Your task to perform on an android device: Search for seafood restaurants on Google Maps Image 0: 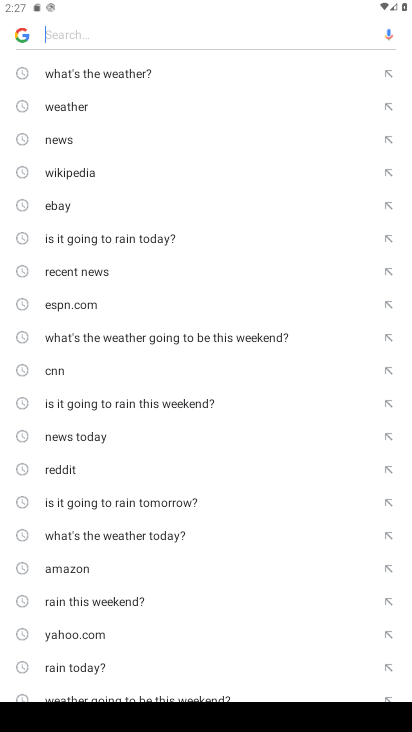
Step 0: press back button
Your task to perform on an android device: Search for seafood restaurants on Google Maps Image 1: 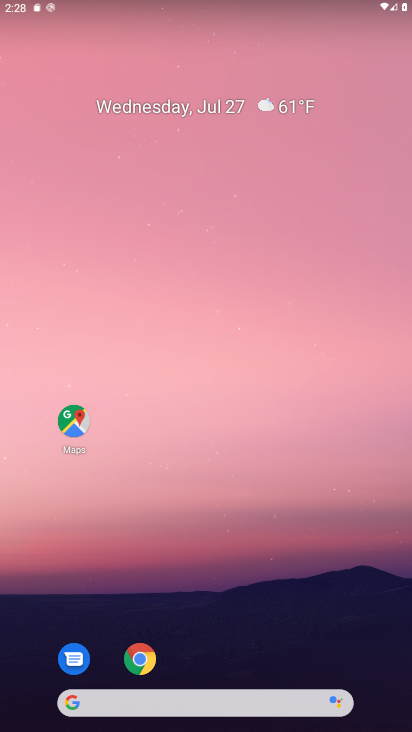
Step 1: click (79, 437)
Your task to perform on an android device: Search for seafood restaurants on Google Maps Image 2: 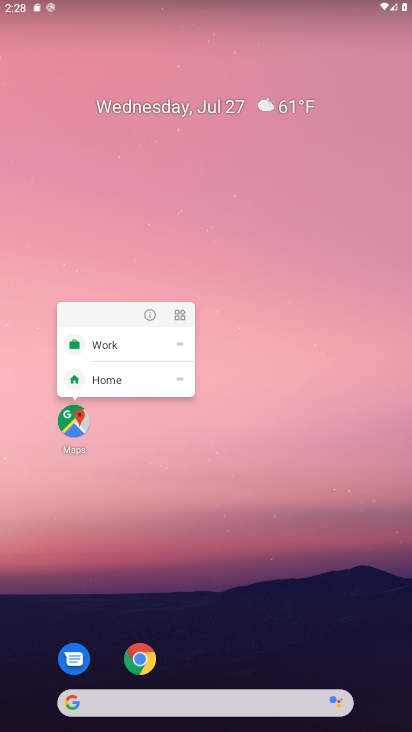
Step 2: click (79, 432)
Your task to perform on an android device: Search for seafood restaurants on Google Maps Image 3: 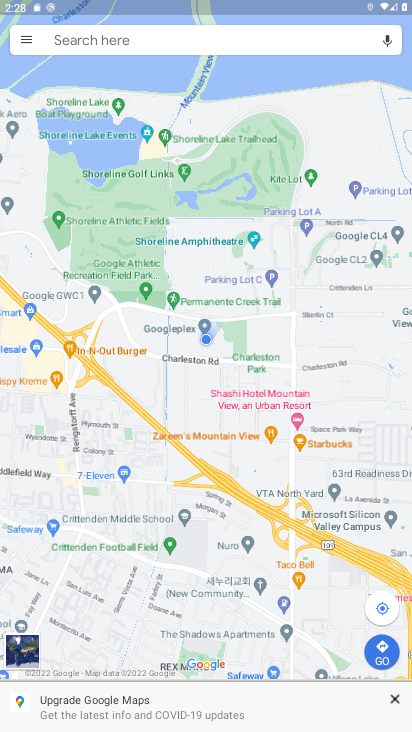
Step 3: click (232, 50)
Your task to perform on an android device: Search for seafood restaurants on Google Maps Image 4: 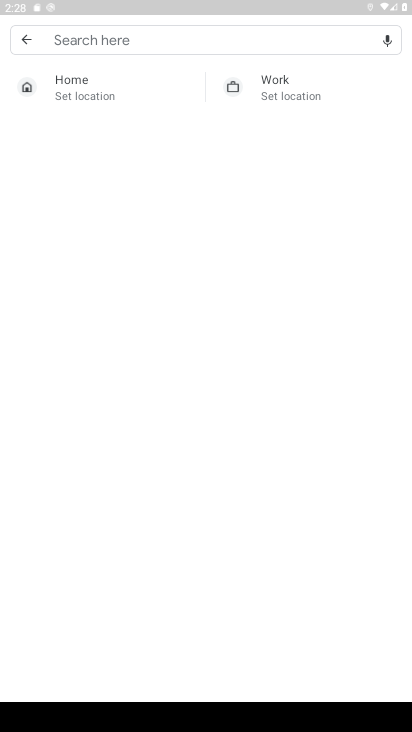
Step 4: type "seafoo dfeatarsnts"
Your task to perform on an android device: Search for seafood restaurants on Google Maps Image 5: 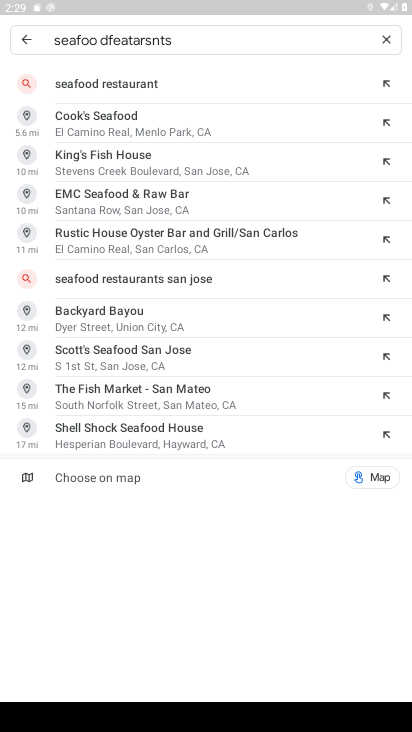
Step 5: click (130, 92)
Your task to perform on an android device: Search for seafood restaurants on Google Maps Image 6: 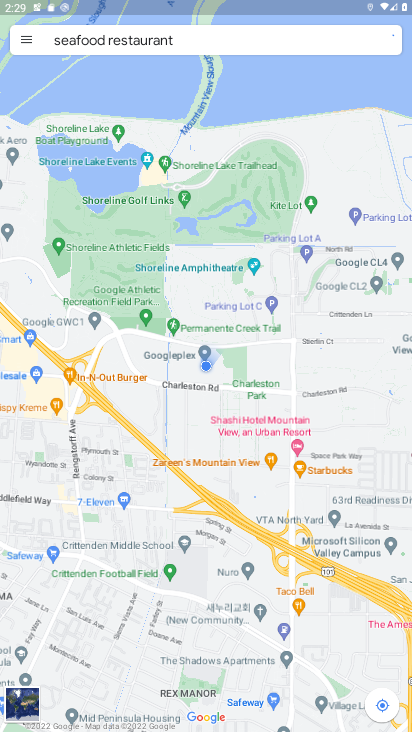
Step 6: task complete